Your task to perform on an android device: open device folders in google photos Image 0: 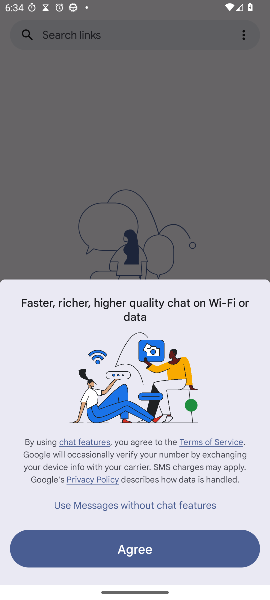
Step 0: press home button
Your task to perform on an android device: open device folders in google photos Image 1: 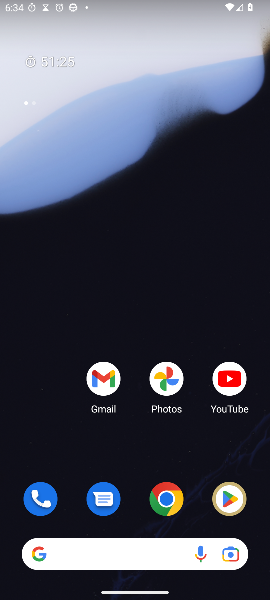
Step 1: drag from (209, 480) to (178, 58)
Your task to perform on an android device: open device folders in google photos Image 2: 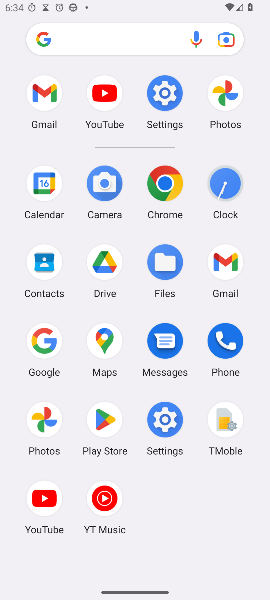
Step 2: click (226, 83)
Your task to perform on an android device: open device folders in google photos Image 3: 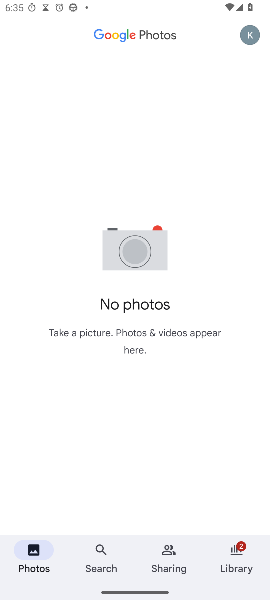
Step 3: task complete